Your task to perform on an android device: turn on translation in the chrome app Image 0: 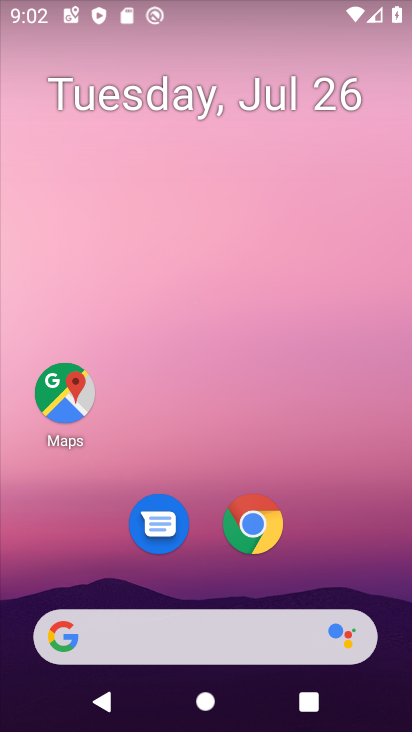
Step 0: press home button
Your task to perform on an android device: turn on translation in the chrome app Image 1: 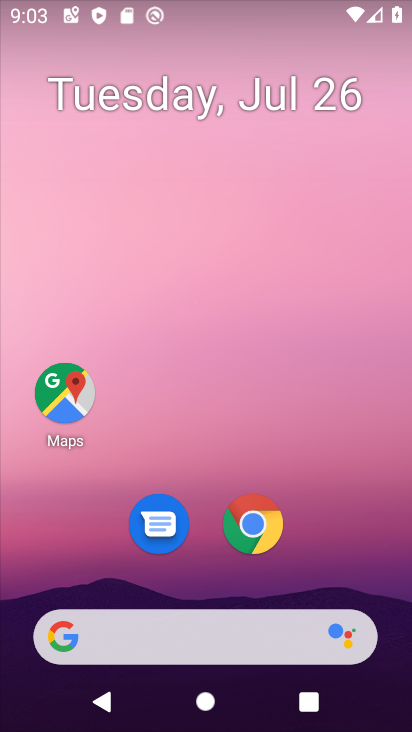
Step 1: click (255, 530)
Your task to perform on an android device: turn on translation in the chrome app Image 2: 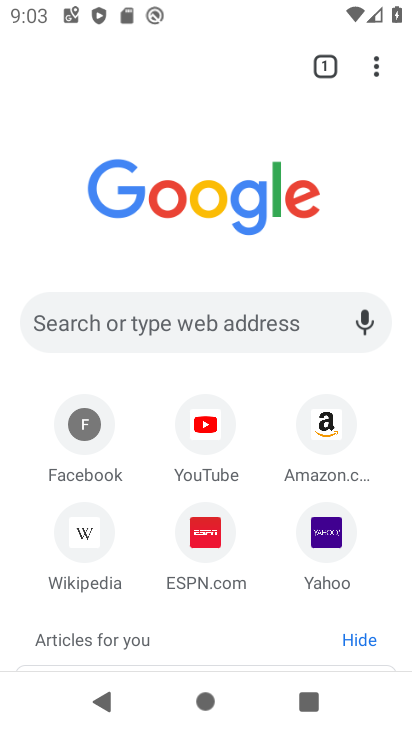
Step 2: drag from (377, 59) to (203, 561)
Your task to perform on an android device: turn on translation in the chrome app Image 3: 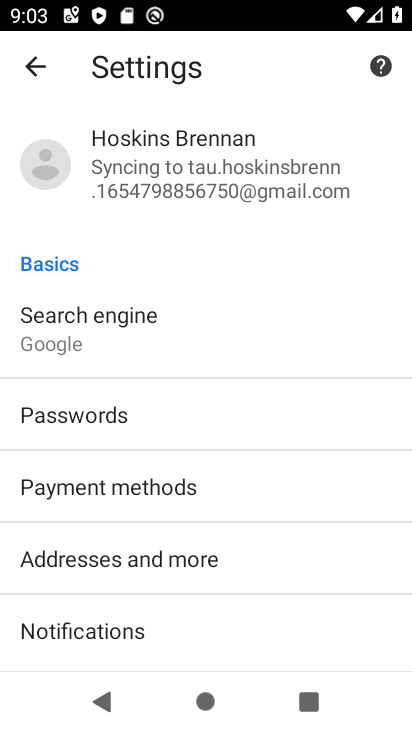
Step 3: drag from (122, 597) to (235, 298)
Your task to perform on an android device: turn on translation in the chrome app Image 4: 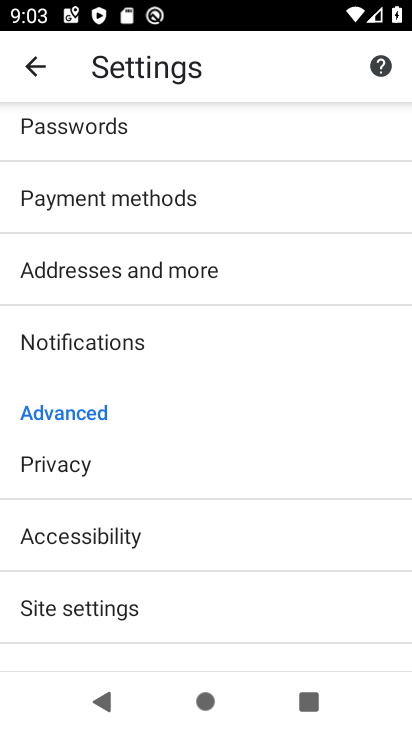
Step 4: drag from (195, 581) to (336, 238)
Your task to perform on an android device: turn on translation in the chrome app Image 5: 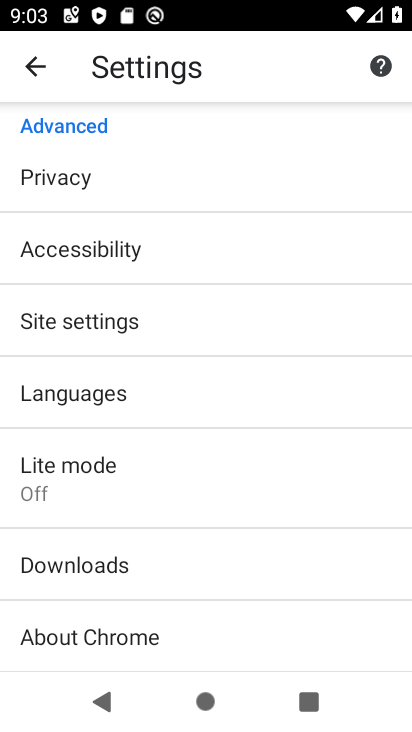
Step 5: click (127, 399)
Your task to perform on an android device: turn on translation in the chrome app Image 6: 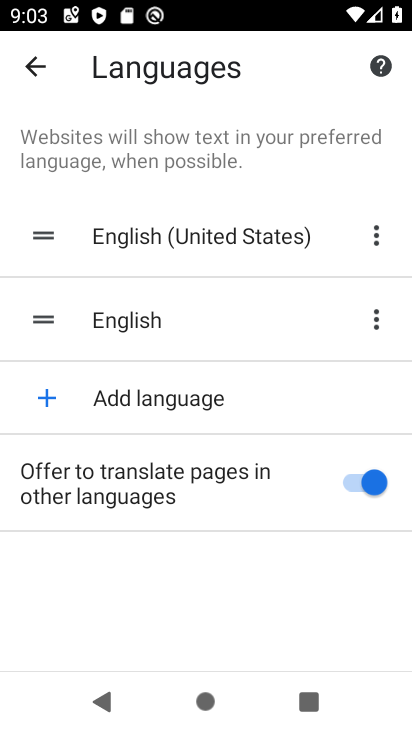
Step 6: task complete